Your task to perform on an android device: choose inbox layout in the gmail app Image 0: 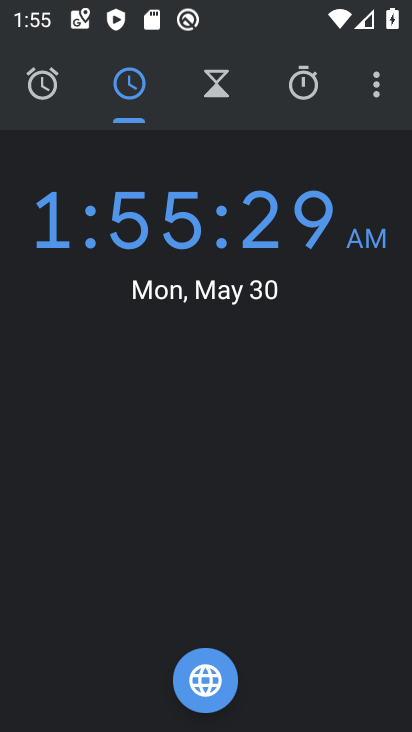
Step 0: press home button
Your task to perform on an android device: choose inbox layout in the gmail app Image 1: 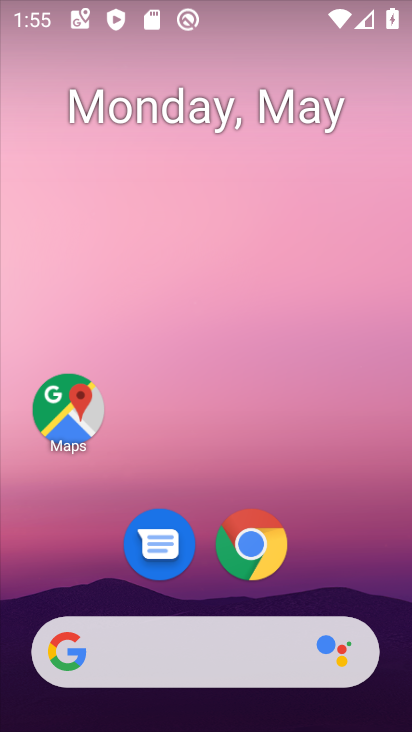
Step 1: drag from (382, 579) to (359, 205)
Your task to perform on an android device: choose inbox layout in the gmail app Image 2: 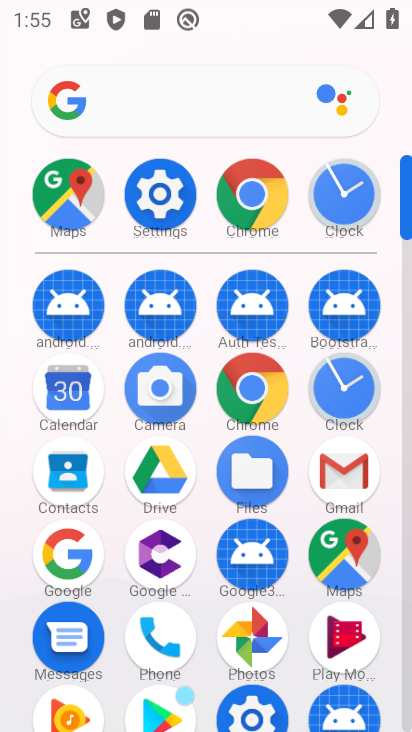
Step 2: click (360, 468)
Your task to perform on an android device: choose inbox layout in the gmail app Image 3: 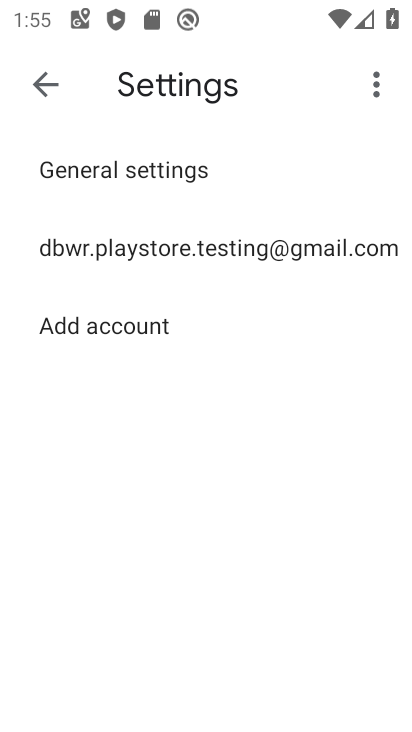
Step 3: click (164, 245)
Your task to perform on an android device: choose inbox layout in the gmail app Image 4: 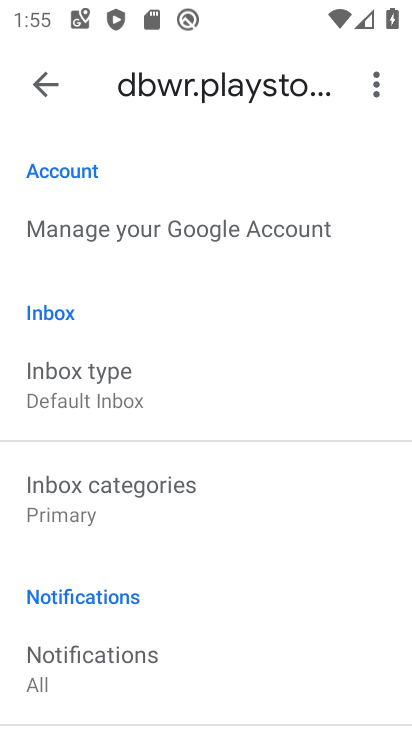
Step 4: drag from (214, 464) to (222, 426)
Your task to perform on an android device: choose inbox layout in the gmail app Image 5: 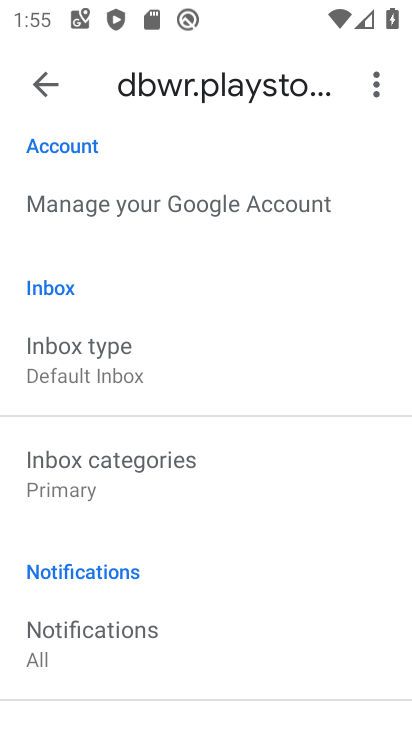
Step 5: drag from (275, 487) to (280, 436)
Your task to perform on an android device: choose inbox layout in the gmail app Image 6: 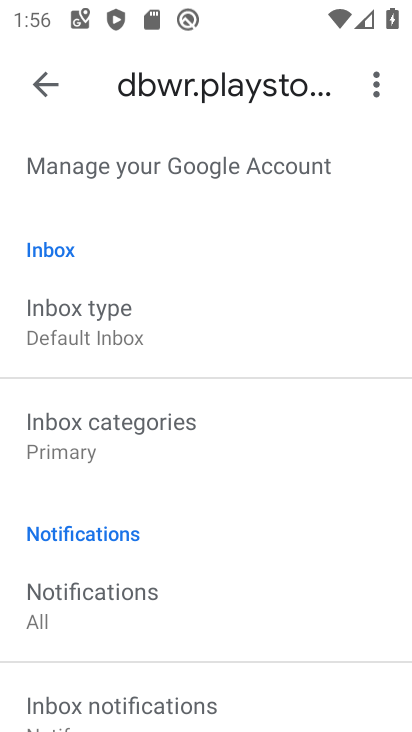
Step 6: click (294, 500)
Your task to perform on an android device: choose inbox layout in the gmail app Image 7: 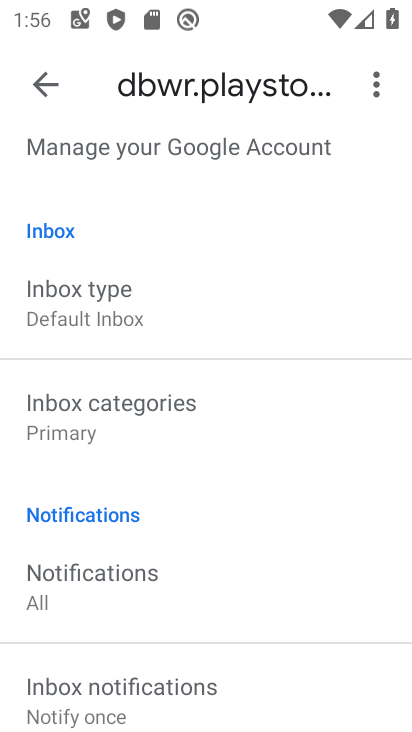
Step 7: click (306, 488)
Your task to perform on an android device: choose inbox layout in the gmail app Image 8: 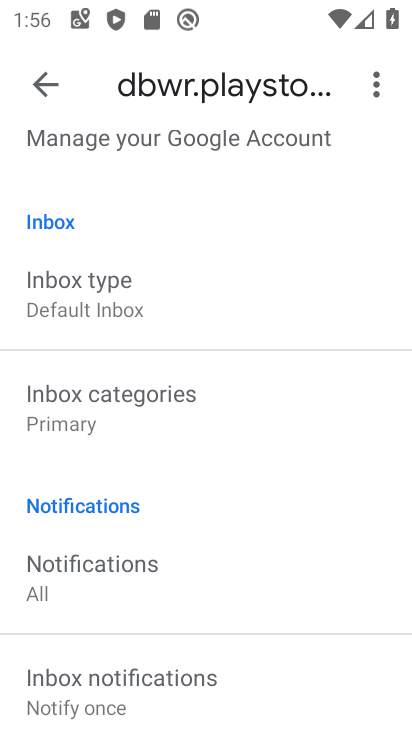
Step 8: drag from (289, 328) to (295, 383)
Your task to perform on an android device: choose inbox layout in the gmail app Image 9: 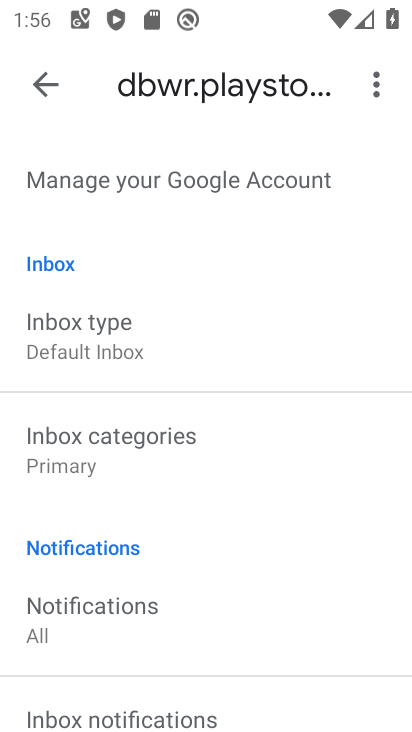
Step 9: drag from (313, 497) to (315, 426)
Your task to perform on an android device: choose inbox layout in the gmail app Image 10: 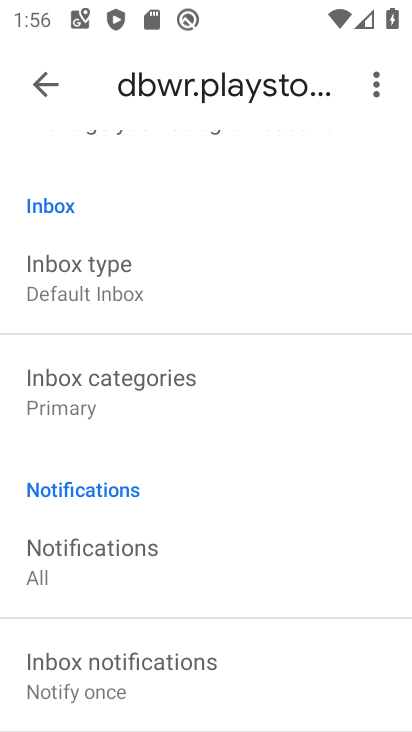
Step 10: drag from (334, 271) to (349, 358)
Your task to perform on an android device: choose inbox layout in the gmail app Image 11: 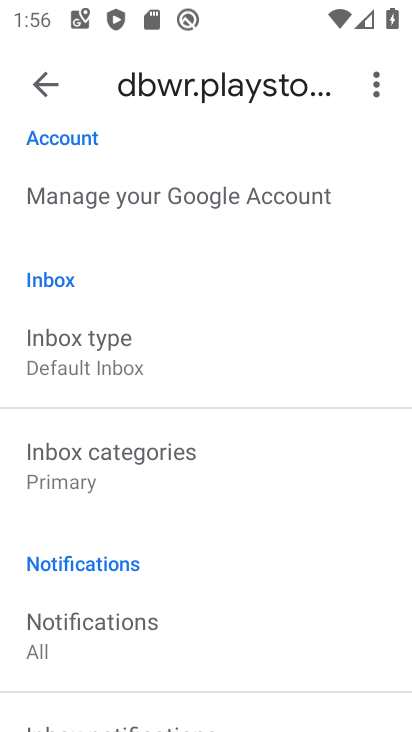
Step 11: drag from (326, 303) to (332, 368)
Your task to perform on an android device: choose inbox layout in the gmail app Image 12: 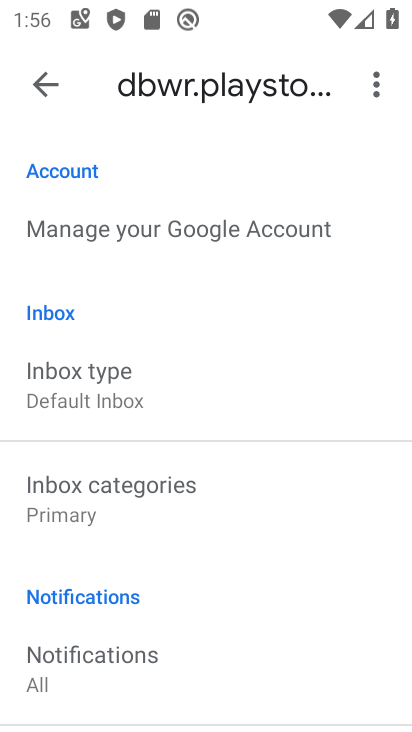
Step 12: drag from (349, 458) to (341, 414)
Your task to perform on an android device: choose inbox layout in the gmail app Image 13: 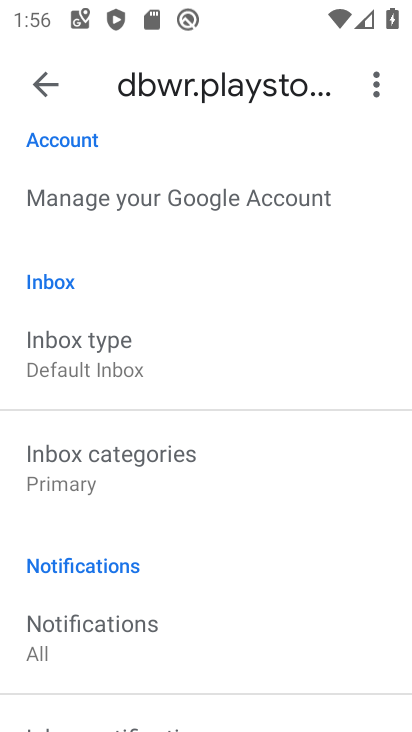
Step 13: click (212, 366)
Your task to perform on an android device: choose inbox layout in the gmail app Image 14: 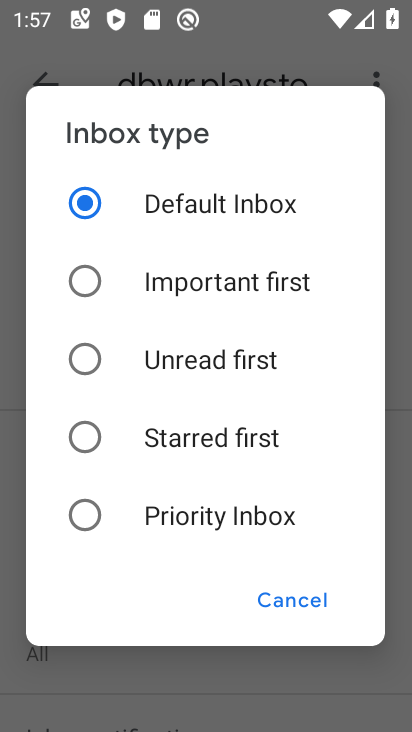
Step 14: click (81, 299)
Your task to perform on an android device: choose inbox layout in the gmail app Image 15: 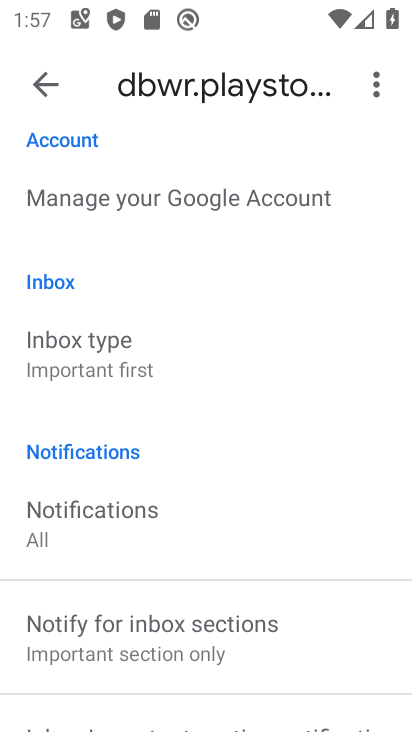
Step 15: task complete